Your task to perform on an android device: change your default location settings in chrome Image 0: 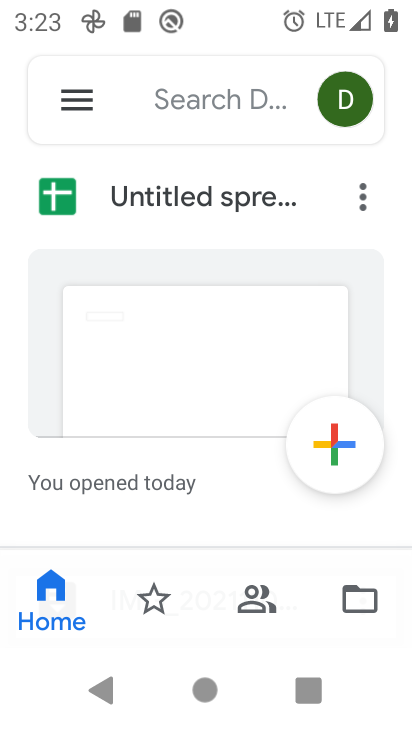
Step 0: press home button
Your task to perform on an android device: change your default location settings in chrome Image 1: 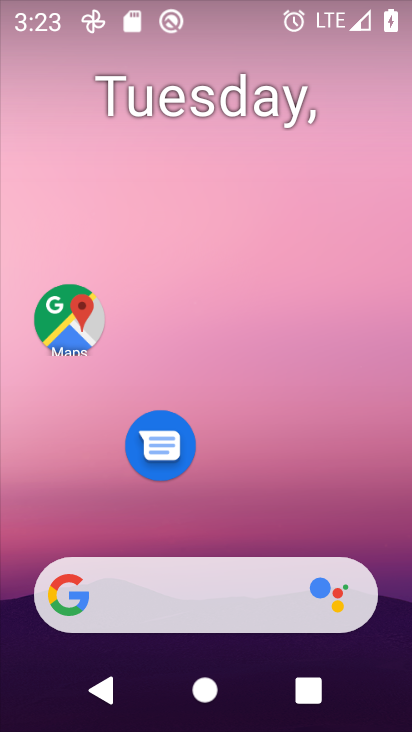
Step 1: drag from (323, 410) to (180, 5)
Your task to perform on an android device: change your default location settings in chrome Image 2: 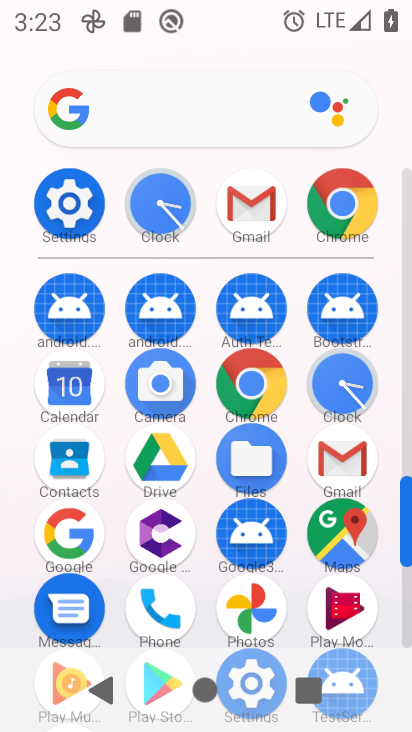
Step 2: click (350, 202)
Your task to perform on an android device: change your default location settings in chrome Image 3: 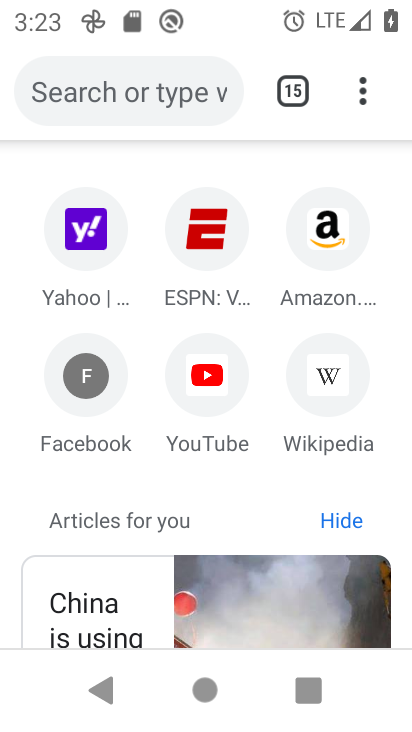
Step 3: click (363, 95)
Your task to perform on an android device: change your default location settings in chrome Image 4: 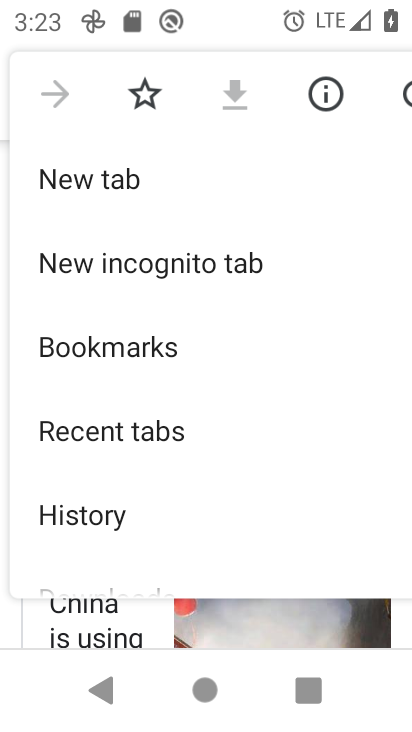
Step 4: drag from (169, 444) to (160, 164)
Your task to perform on an android device: change your default location settings in chrome Image 5: 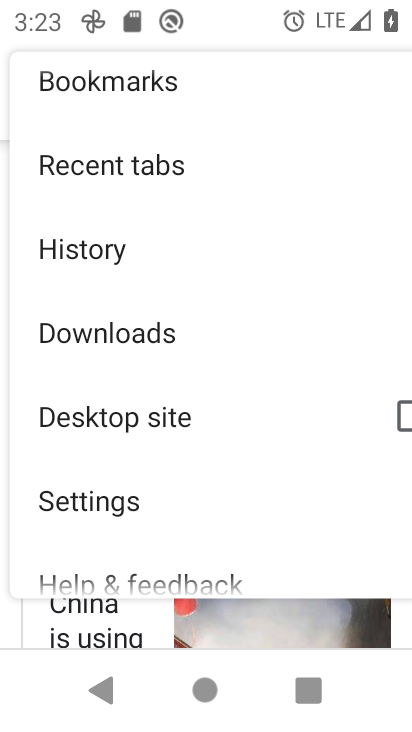
Step 5: click (116, 506)
Your task to perform on an android device: change your default location settings in chrome Image 6: 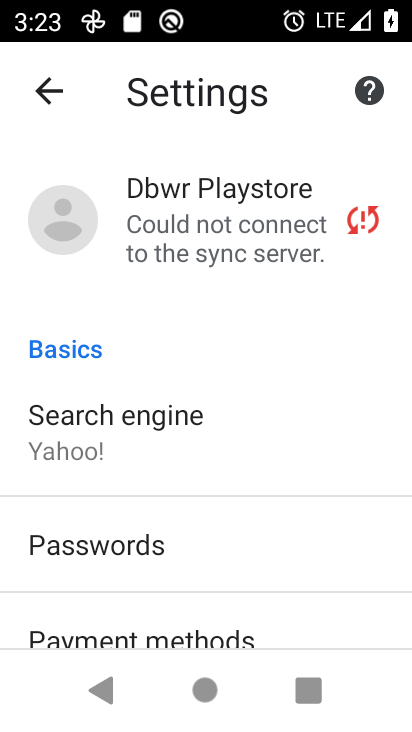
Step 6: drag from (156, 492) to (122, 6)
Your task to perform on an android device: change your default location settings in chrome Image 7: 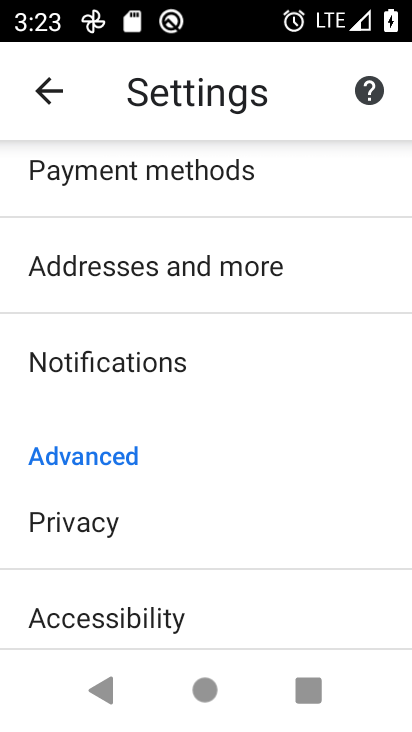
Step 7: drag from (169, 489) to (149, 313)
Your task to perform on an android device: change your default location settings in chrome Image 8: 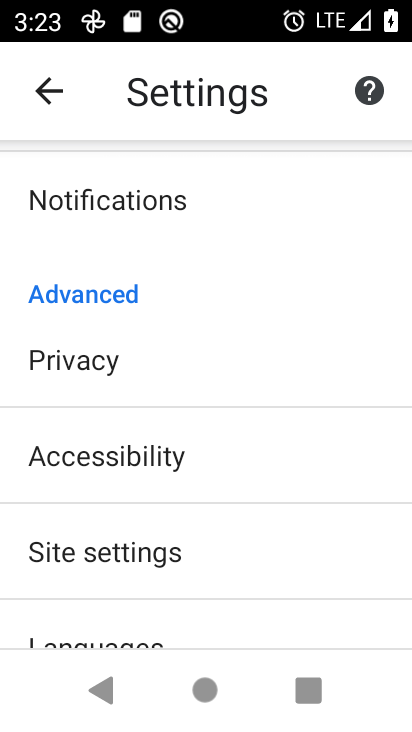
Step 8: drag from (168, 508) to (168, 334)
Your task to perform on an android device: change your default location settings in chrome Image 9: 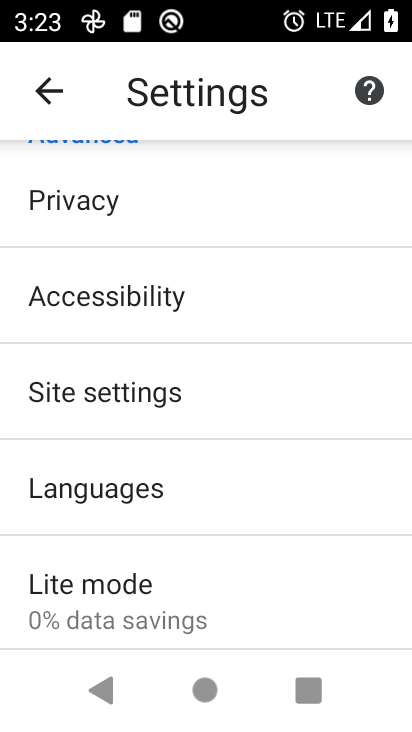
Step 9: click (98, 396)
Your task to perform on an android device: change your default location settings in chrome Image 10: 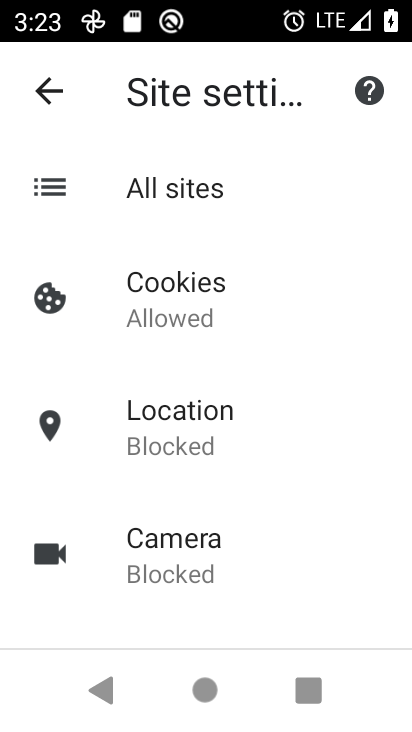
Step 10: click (165, 406)
Your task to perform on an android device: change your default location settings in chrome Image 11: 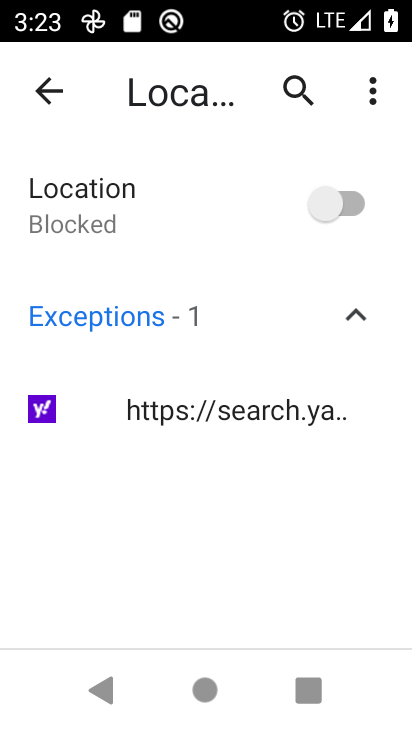
Step 11: click (320, 209)
Your task to perform on an android device: change your default location settings in chrome Image 12: 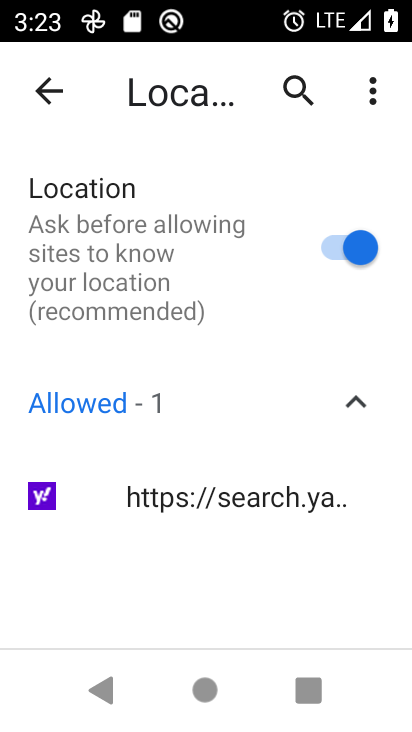
Step 12: task complete